Your task to perform on an android device: toggle sleep mode Image 0: 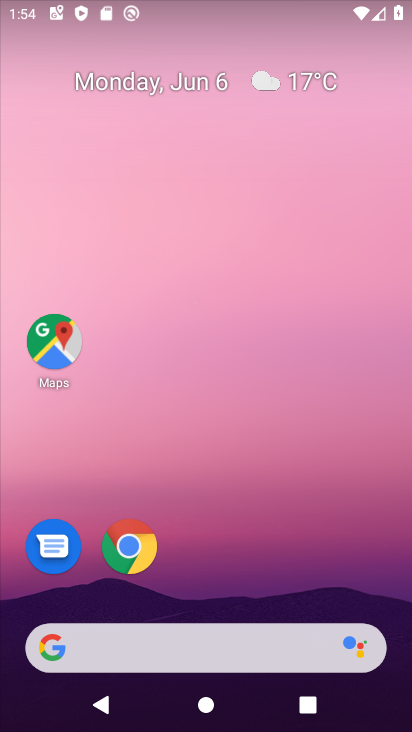
Step 0: drag from (295, 480) to (298, 88)
Your task to perform on an android device: toggle sleep mode Image 1: 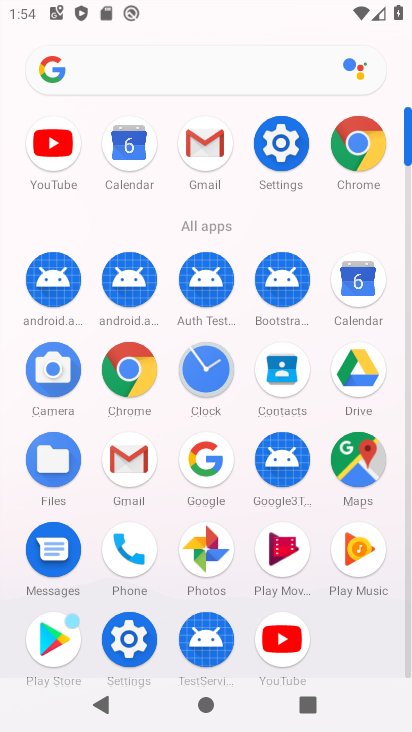
Step 1: click (294, 139)
Your task to perform on an android device: toggle sleep mode Image 2: 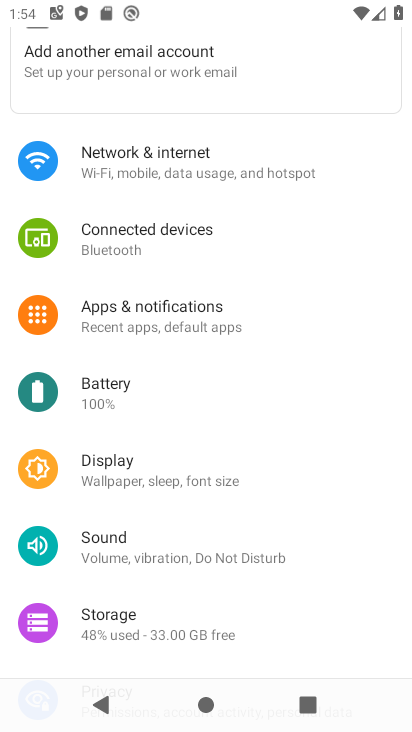
Step 2: click (114, 469)
Your task to perform on an android device: toggle sleep mode Image 3: 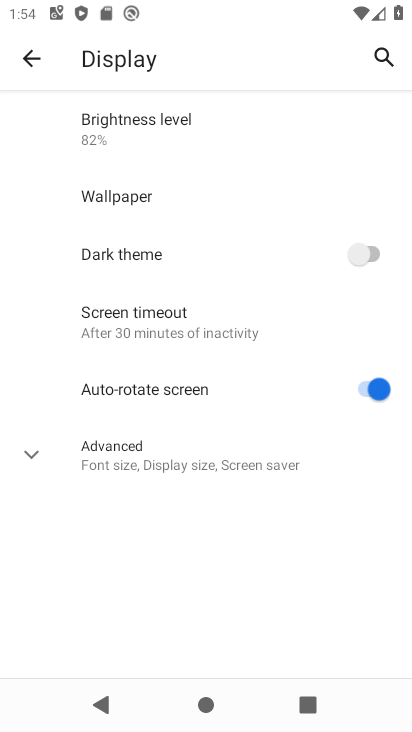
Step 3: click (186, 314)
Your task to perform on an android device: toggle sleep mode Image 4: 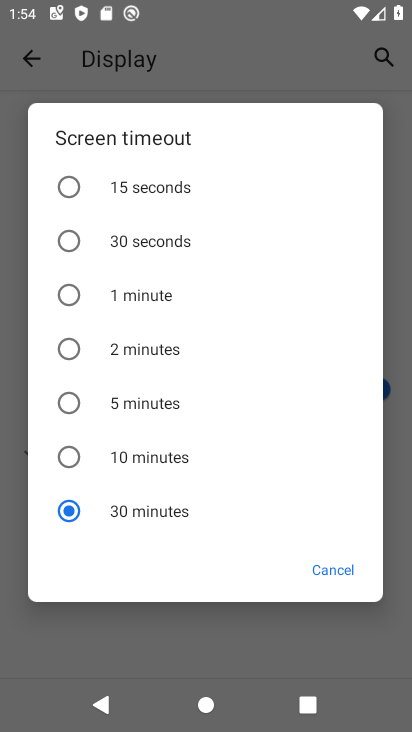
Step 4: click (128, 451)
Your task to perform on an android device: toggle sleep mode Image 5: 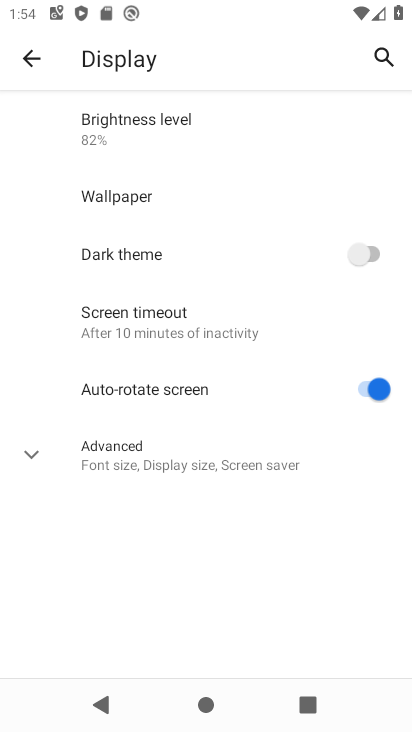
Step 5: task complete